Your task to perform on an android device: Search for Mexican restaurants on Maps Image 0: 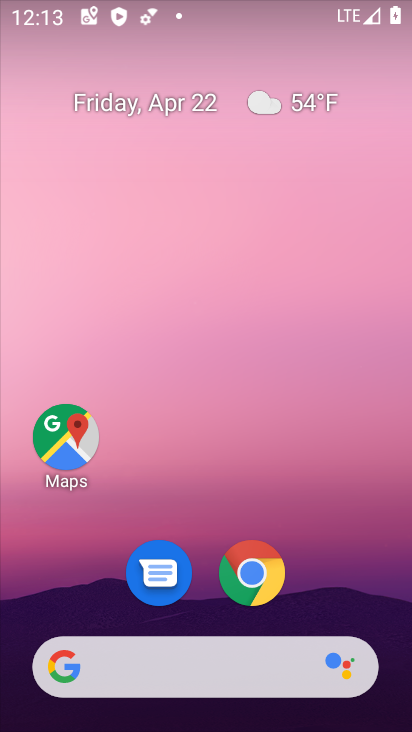
Step 0: drag from (375, 601) to (361, 188)
Your task to perform on an android device: Search for Mexican restaurants on Maps Image 1: 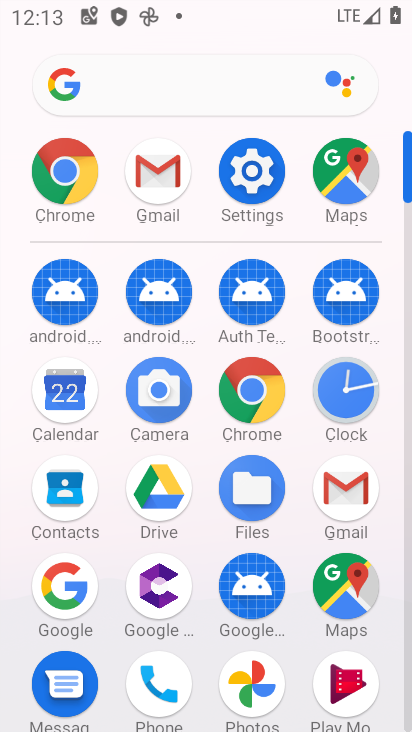
Step 1: click (337, 595)
Your task to perform on an android device: Search for Mexican restaurants on Maps Image 2: 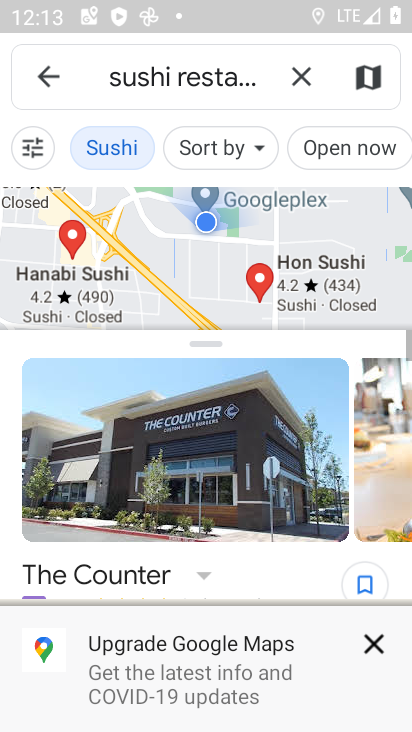
Step 2: click (307, 77)
Your task to perform on an android device: Search for Mexican restaurants on Maps Image 3: 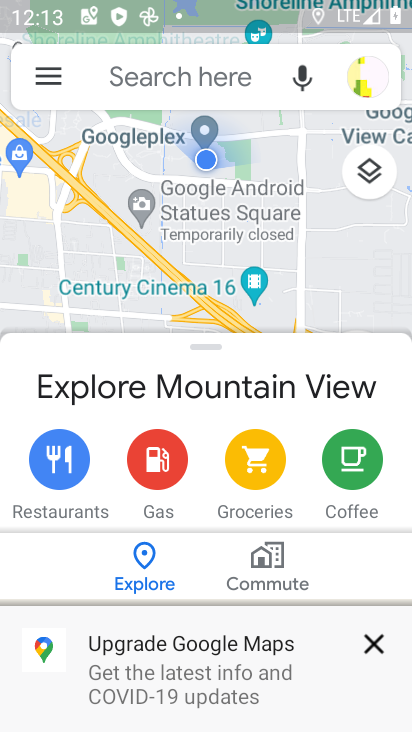
Step 3: click (151, 79)
Your task to perform on an android device: Search for Mexican restaurants on Maps Image 4: 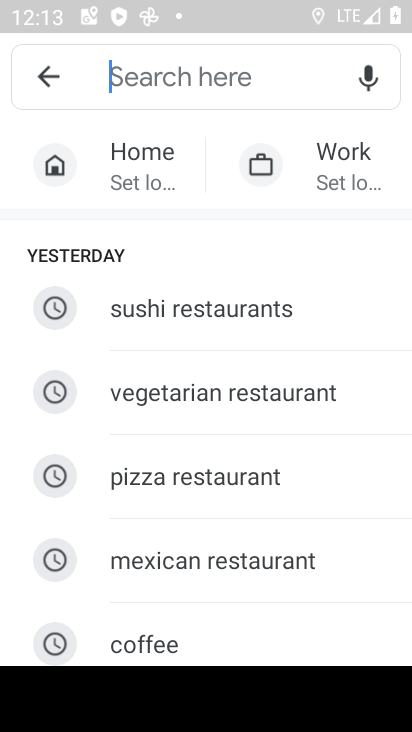
Step 4: click (248, 567)
Your task to perform on an android device: Search for Mexican restaurants on Maps Image 5: 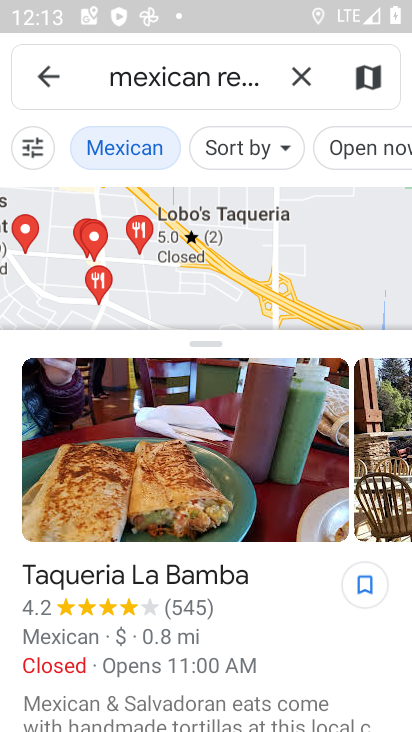
Step 5: task complete